Your task to perform on an android device: turn off sleep mode Image 0: 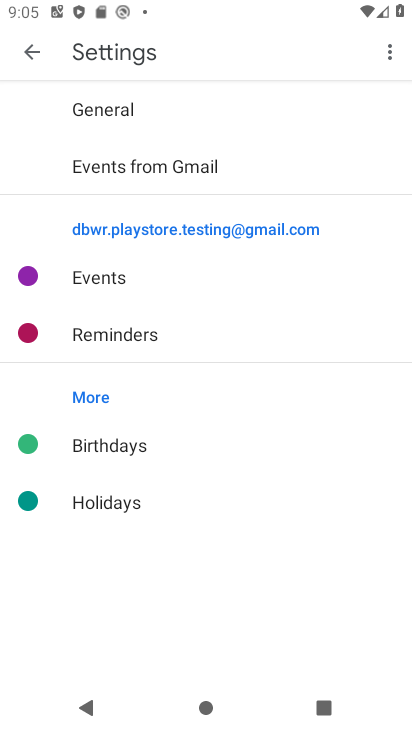
Step 0: press home button
Your task to perform on an android device: turn off sleep mode Image 1: 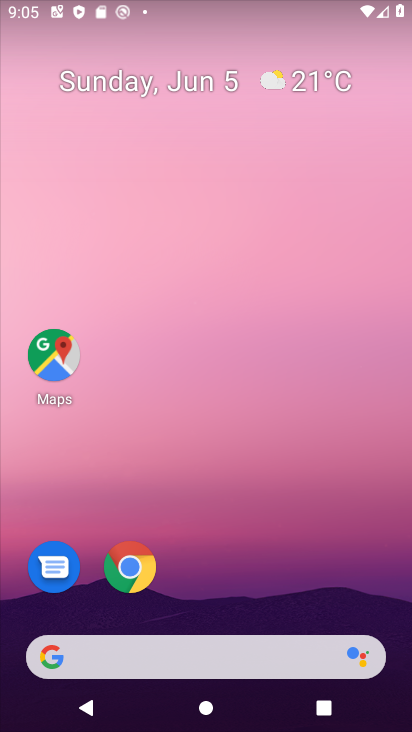
Step 1: drag from (184, 616) to (207, 294)
Your task to perform on an android device: turn off sleep mode Image 2: 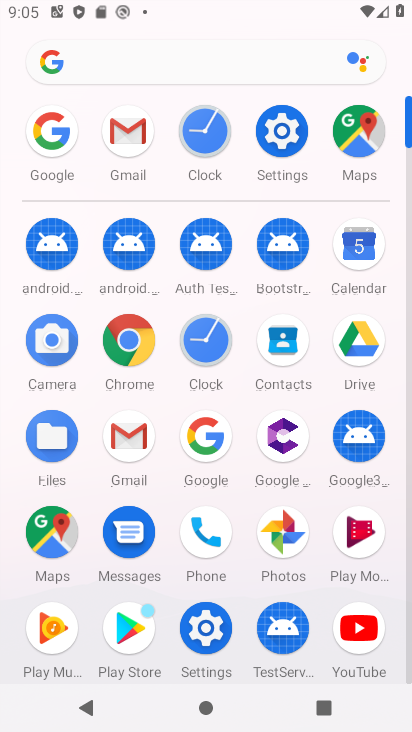
Step 2: click (291, 122)
Your task to perform on an android device: turn off sleep mode Image 3: 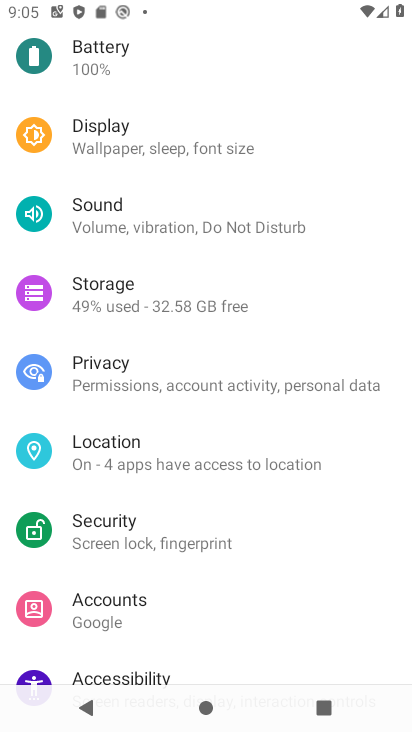
Step 3: click (188, 138)
Your task to perform on an android device: turn off sleep mode Image 4: 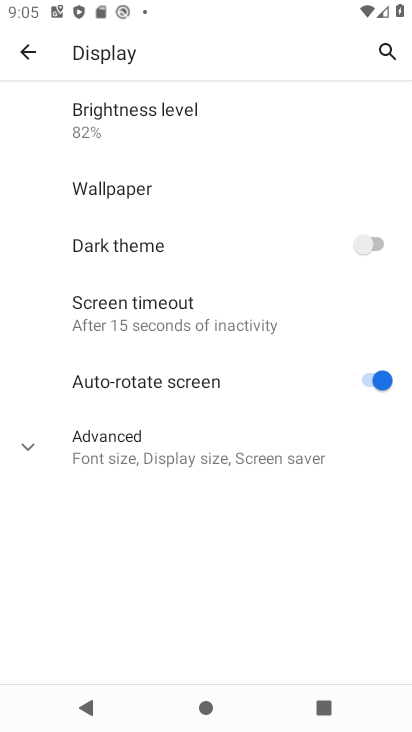
Step 4: click (165, 315)
Your task to perform on an android device: turn off sleep mode Image 5: 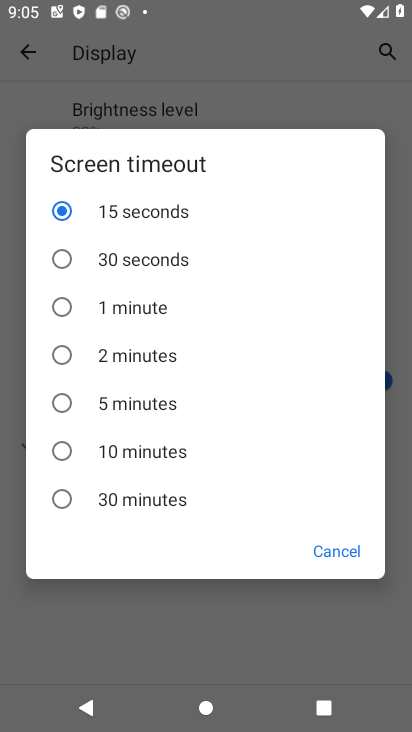
Step 5: click (146, 216)
Your task to perform on an android device: turn off sleep mode Image 6: 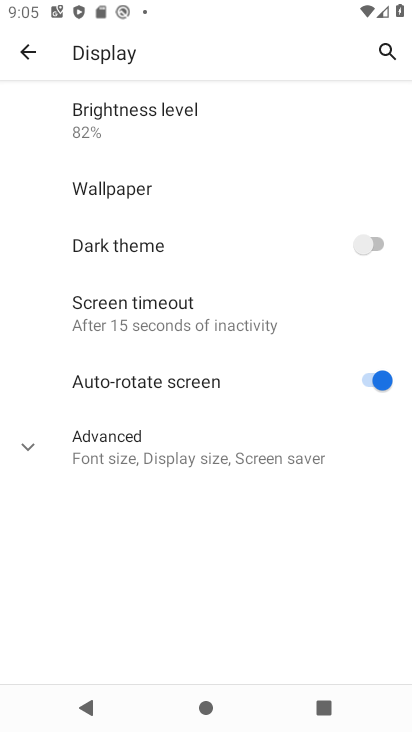
Step 6: task complete